Your task to perform on an android device: turn on wifi Image 0: 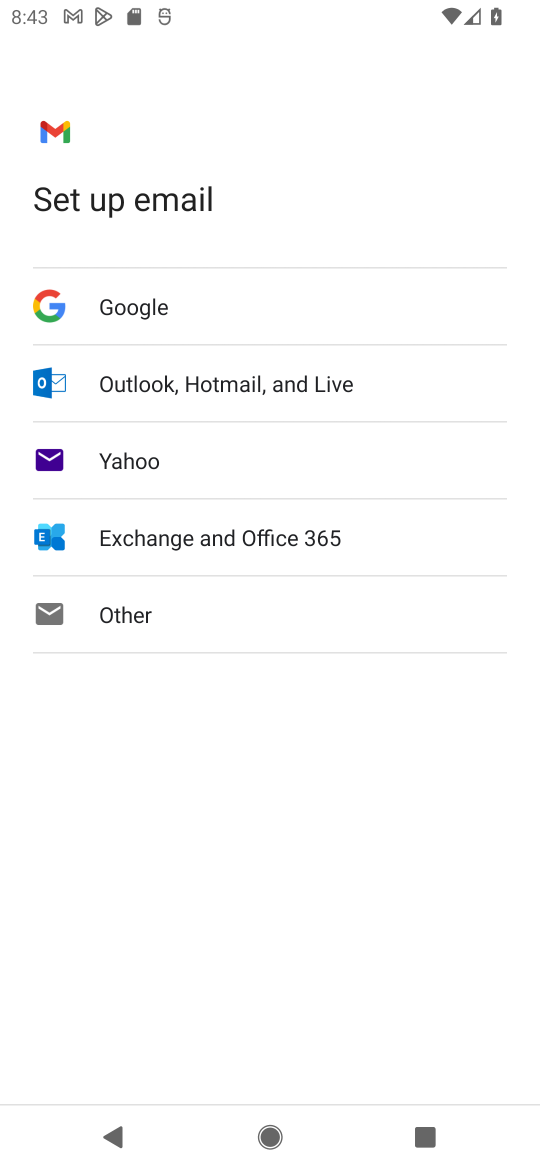
Step 0: press home button
Your task to perform on an android device: turn on wifi Image 1: 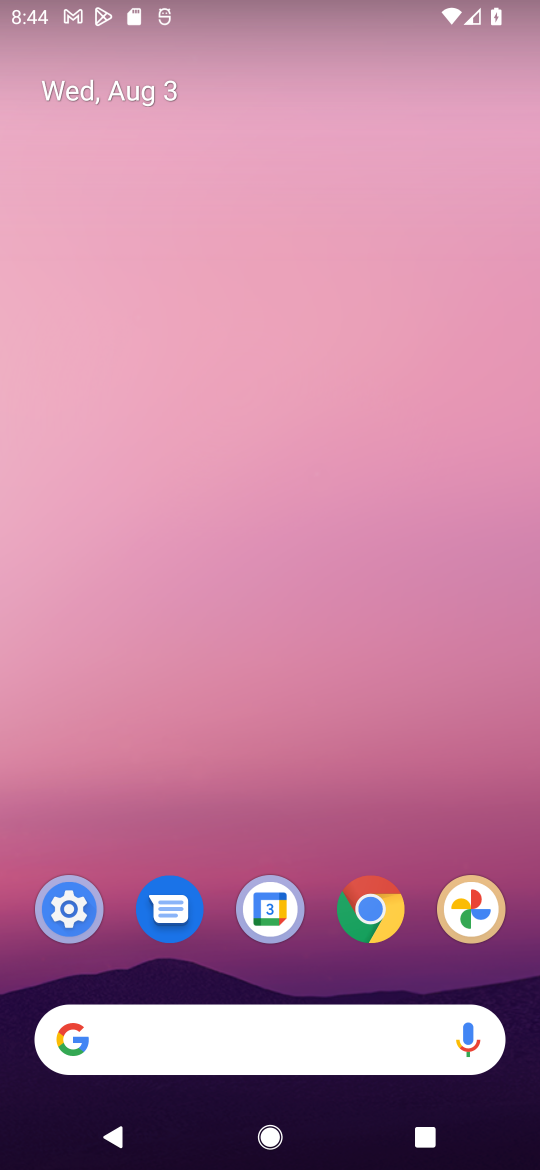
Step 1: drag from (407, 822) to (430, 398)
Your task to perform on an android device: turn on wifi Image 2: 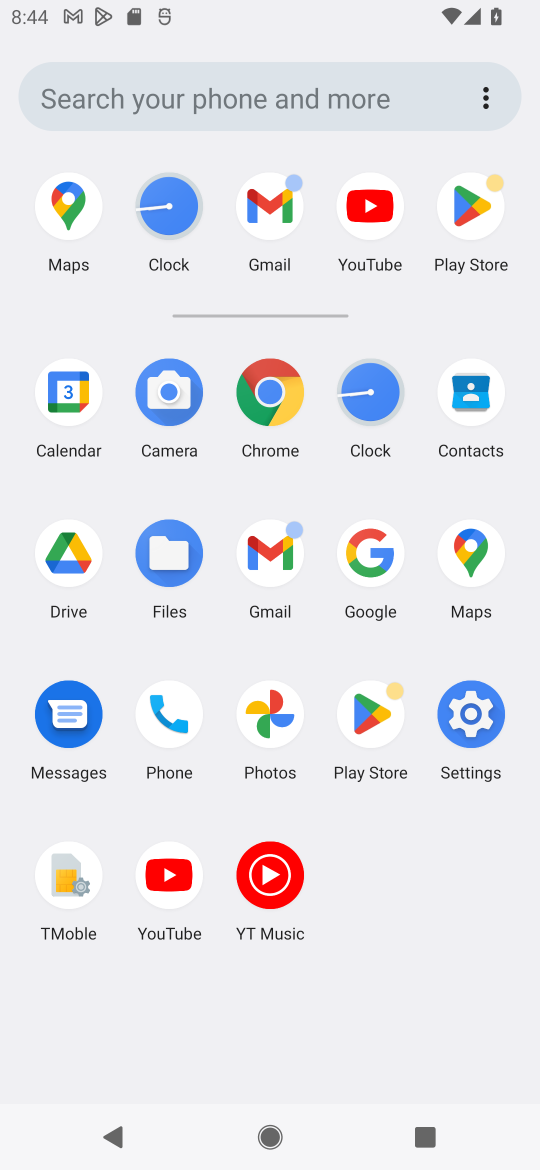
Step 2: click (481, 720)
Your task to perform on an android device: turn on wifi Image 3: 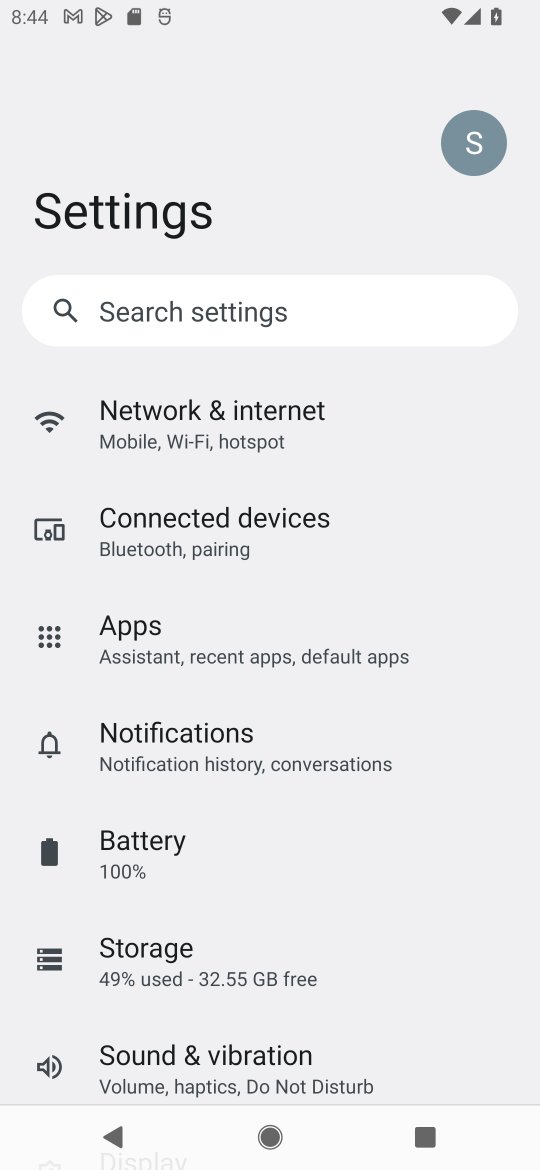
Step 3: drag from (458, 889) to (477, 710)
Your task to perform on an android device: turn on wifi Image 4: 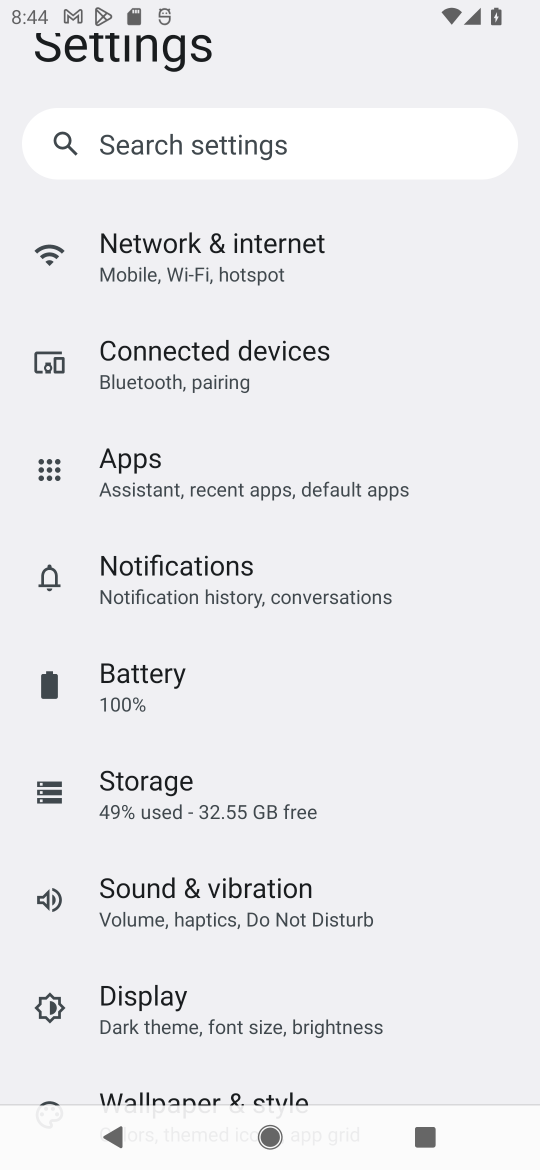
Step 4: drag from (437, 947) to (447, 775)
Your task to perform on an android device: turn on wifi Image 5: 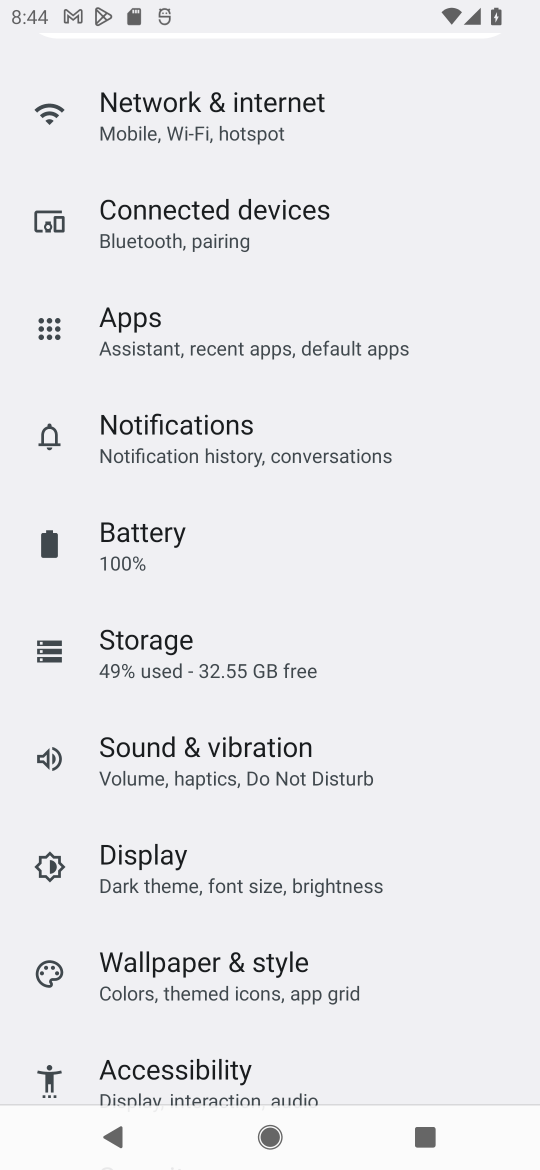
Step 5: drag from (460, 969) to (458, 791)
Your task to perform on an android device: turn on wifi Image 6: 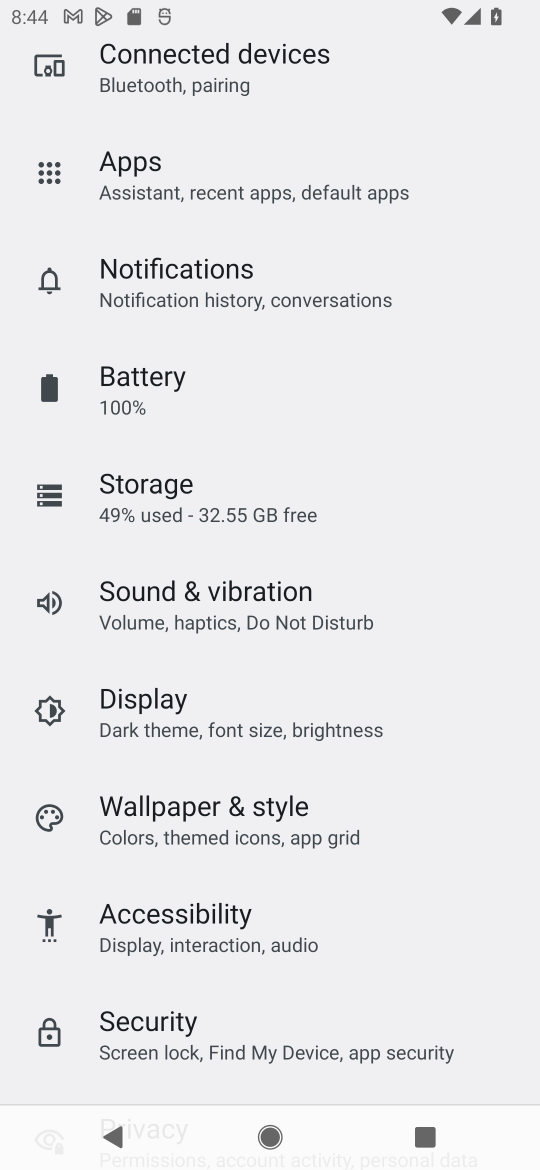
Step 6: drag from (461, 984) to (469, 803)
Your task to perform on an android device: turn on wifi Image 7: 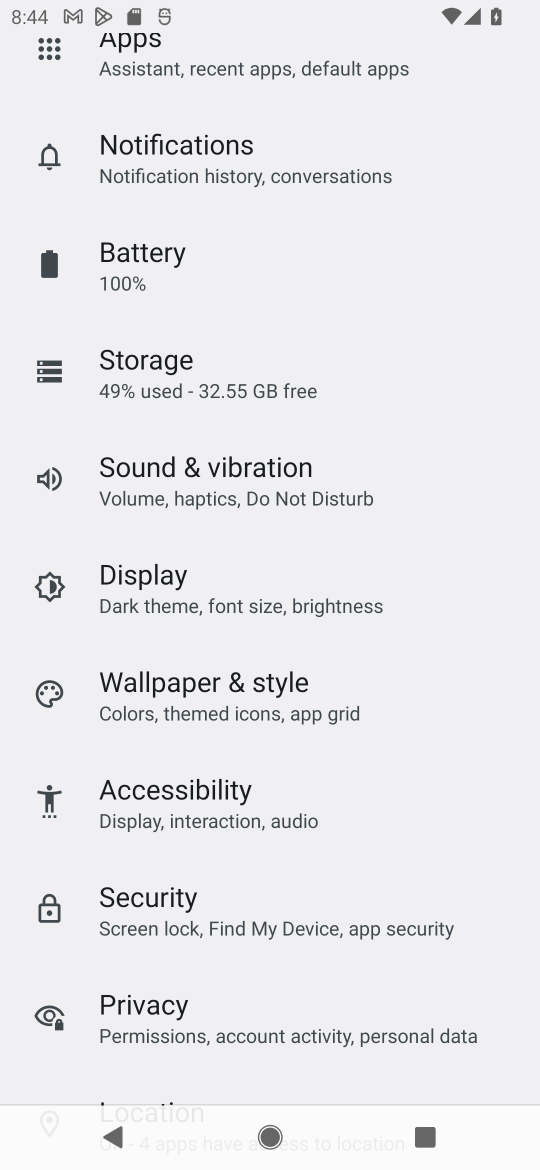
Step 7: drag from (477, 1053) to (477, 897)
Your task to perform on an android device: turn on wifi Image 8: 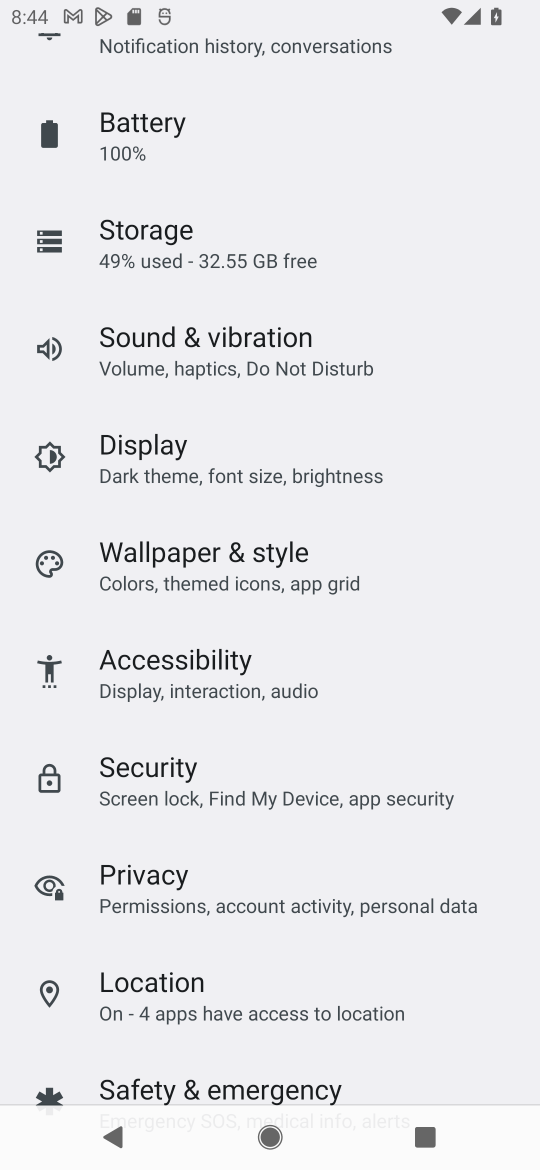
Step 8: drag from (450, 981) to (460, 839)
Your task to perform on an android device: turn on wifi Image 9: 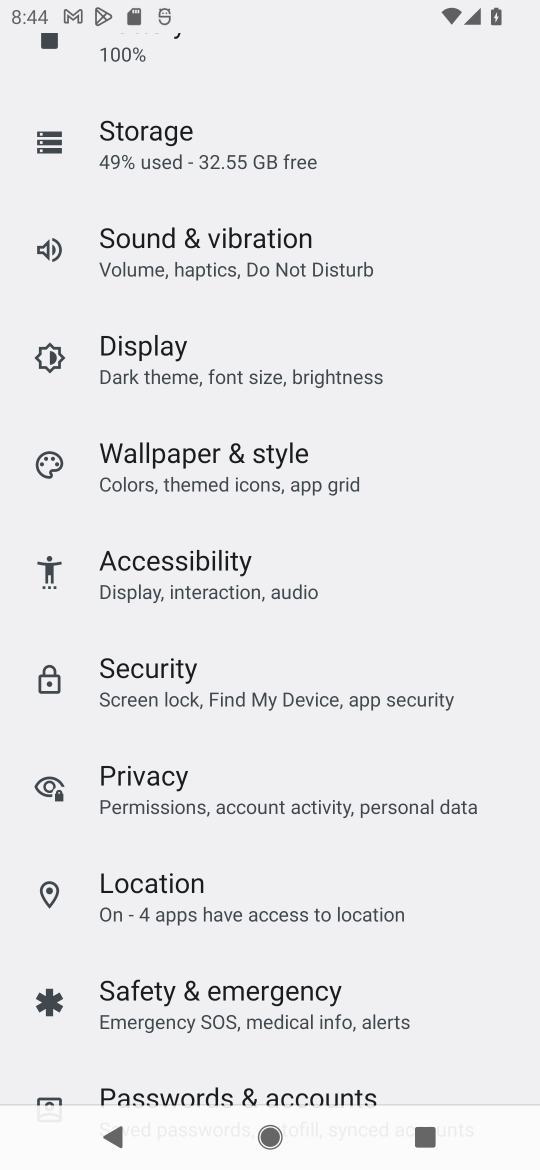
Step 9: drag from (483, 1012) to (480, 846)
Your task to perform on an android device: turn on wifi Image 10: 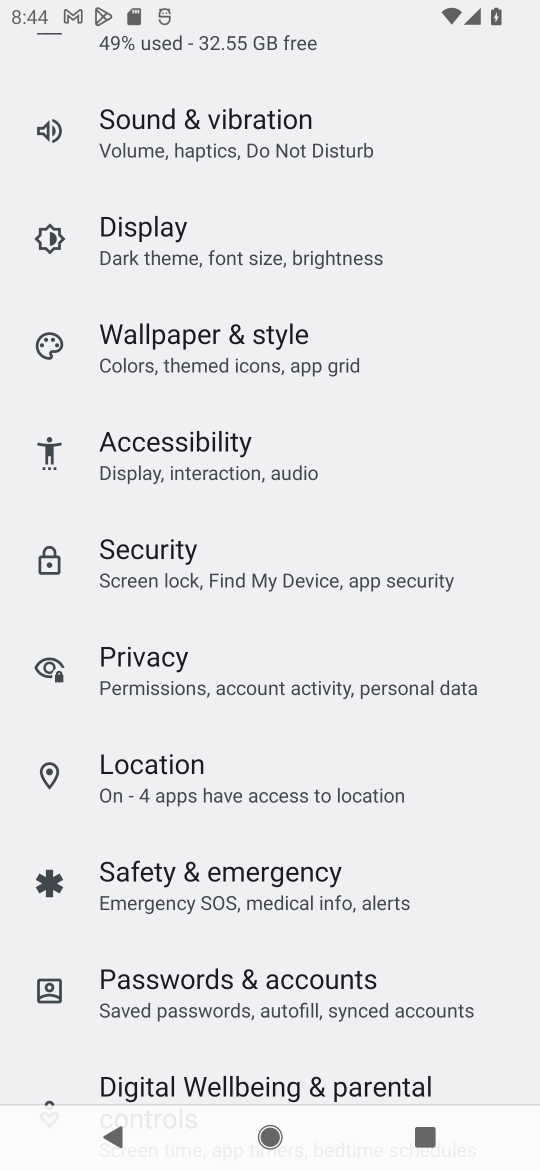
Step 10: drag from (479, 1018) to (489, 832)
Your task to perform on an android device: turn on wifi Image 11: 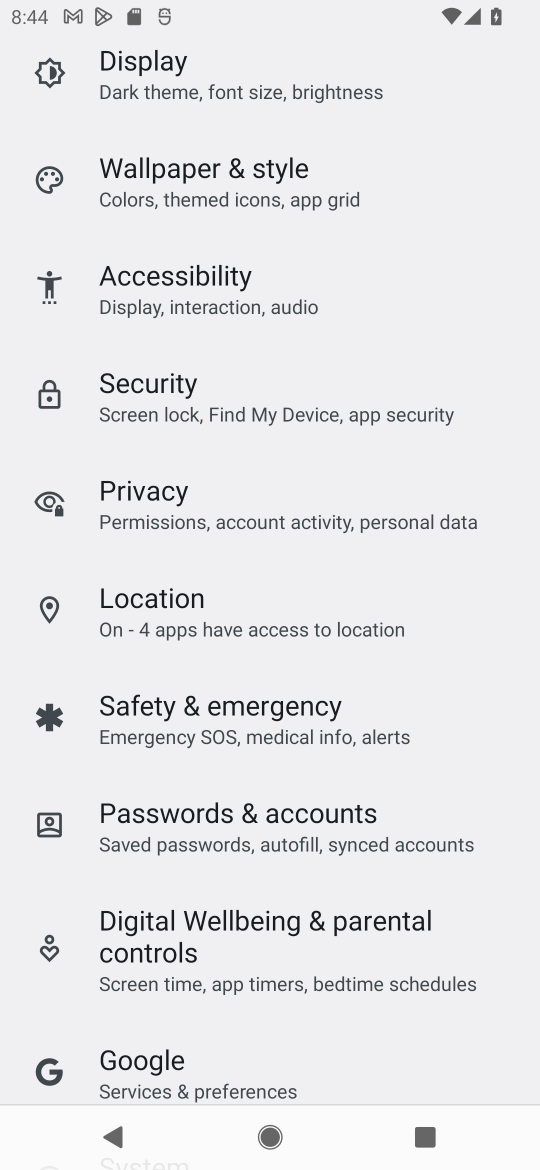
Step 11: drag from (474, 1024) to (487, 854)
Your task to perform on an android device: turn on wifi Image 12: 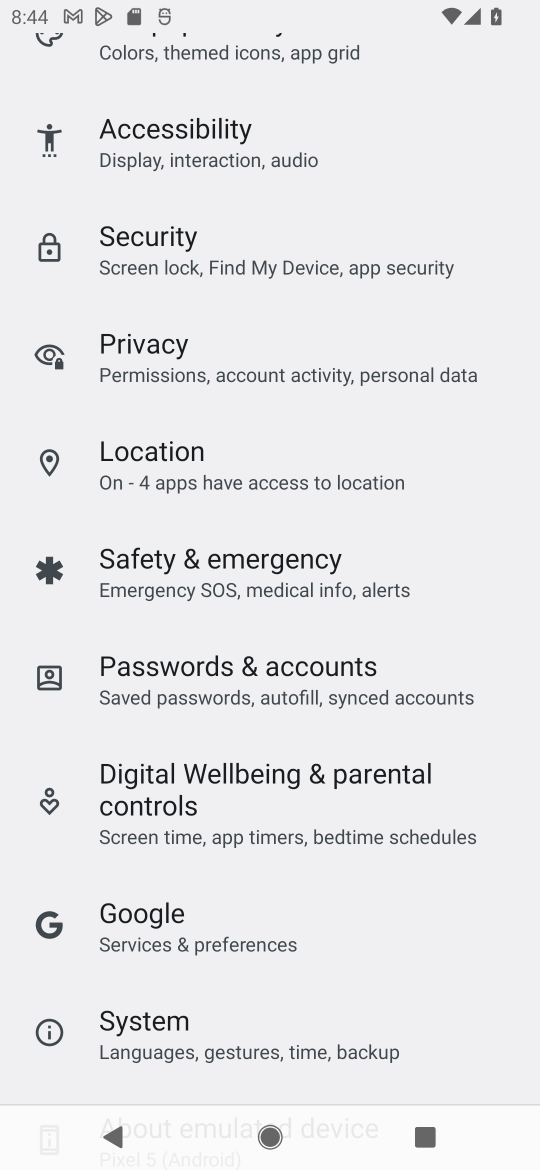
Step 12: drag from (466, 533) to (469, 730)
Your task to perform on an android device: turn on wifi Image 13: 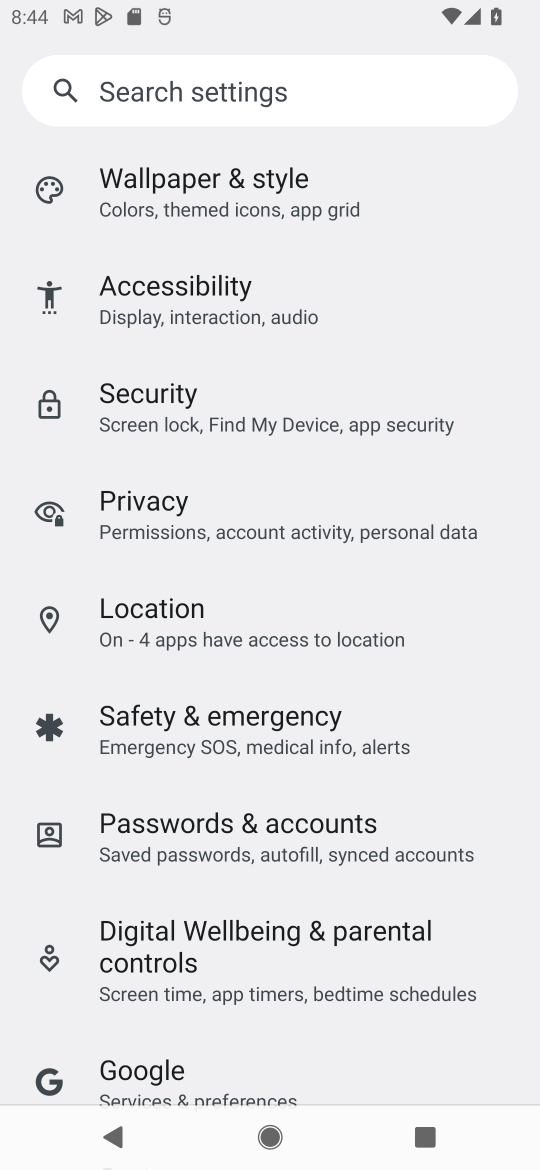
Step 13: drag from (471, 381) to (476, 547)
Your task to perform on an android device: turn on wifi Image 14: 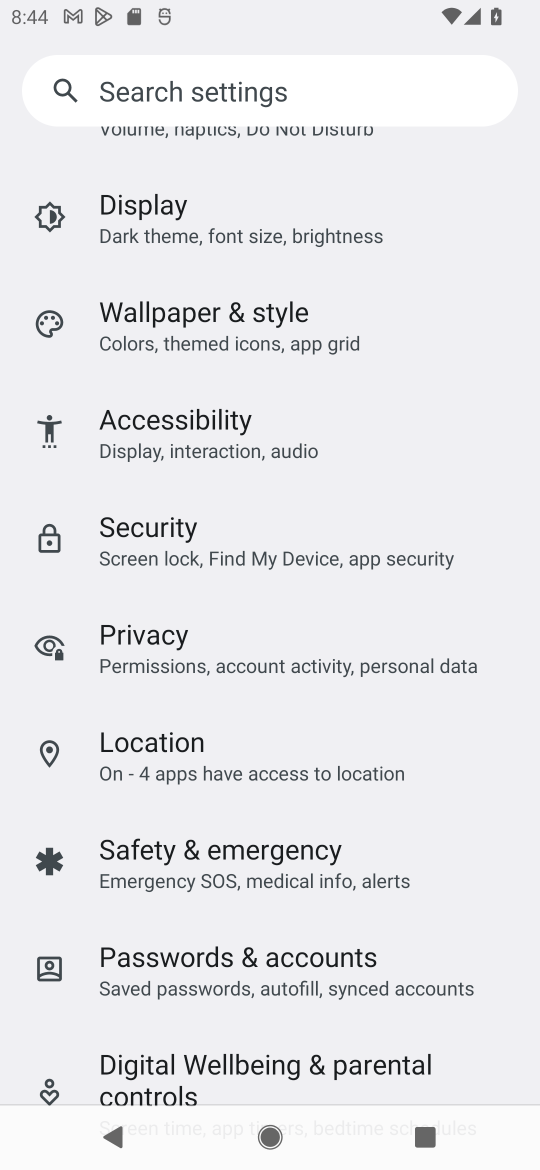
Step 14: drag from (481, 360) to (477, 557)
Your task to perform on an android device: turn on wifi Image 15: 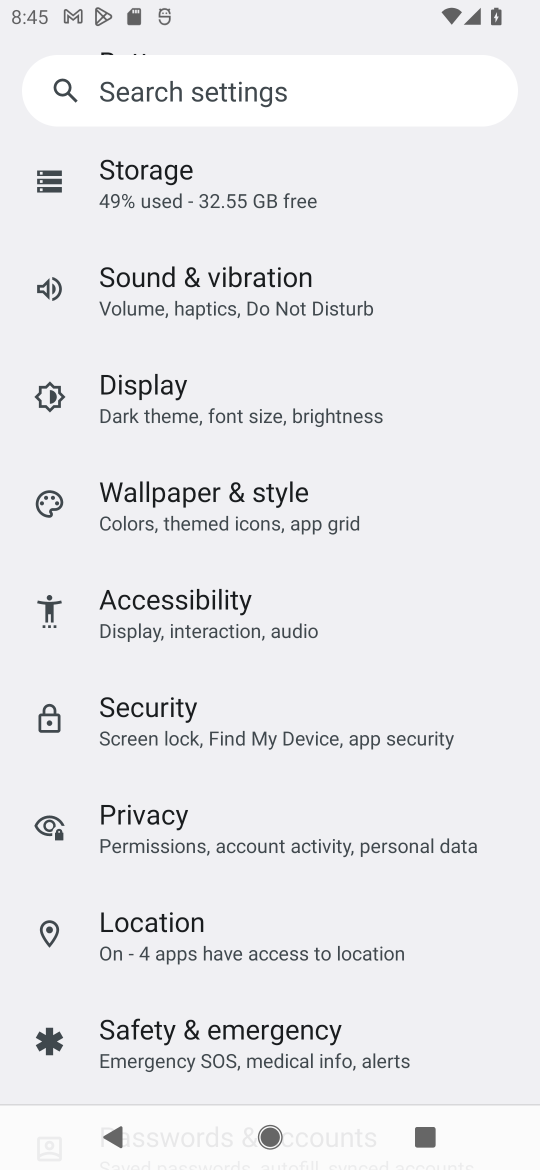
Step 15: drag from (480, 391) to (473, 597)
Your task to perform on an android device: turn on wifi Image 16: 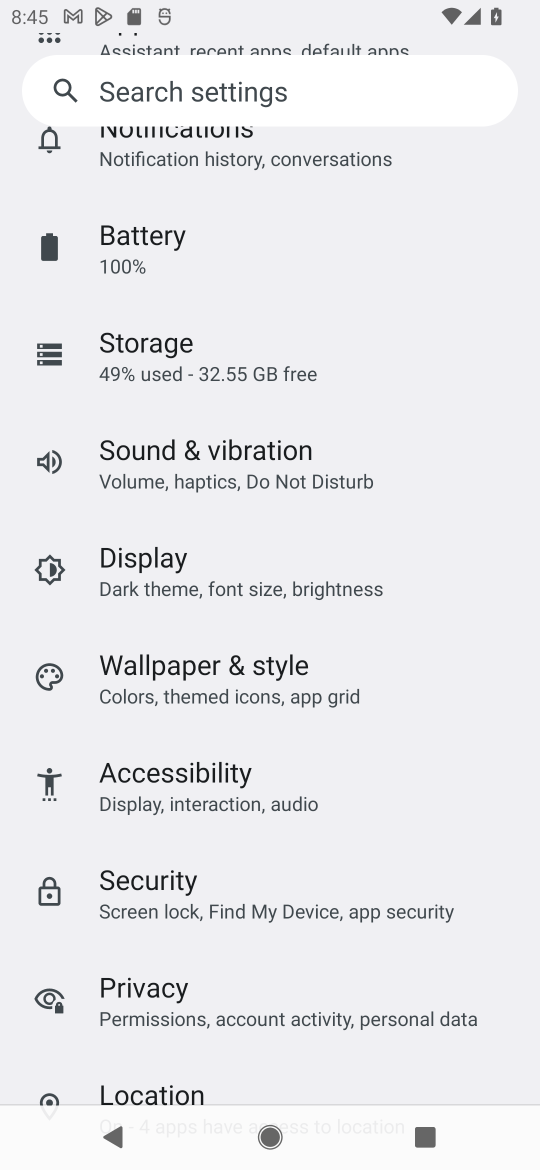
Step 16: drag from (449, 409) to (439, 573)
Your task to perform on an android device: turn on wifi Image 17: 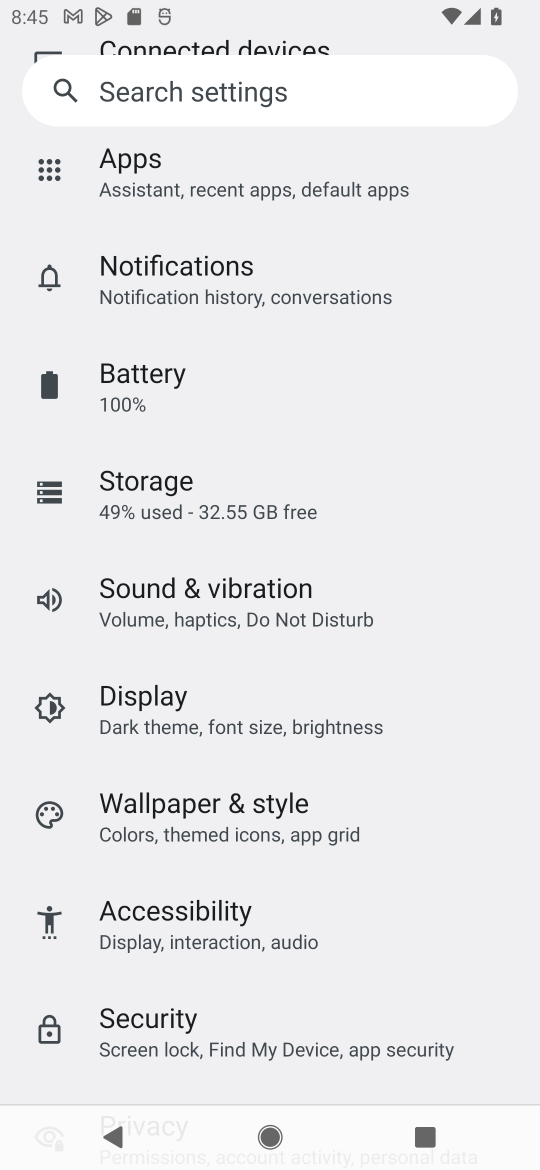
Step 17: drag from (457, 360) to (462, 606)
Your task to perform on an android device: turn on wifi Image 18: 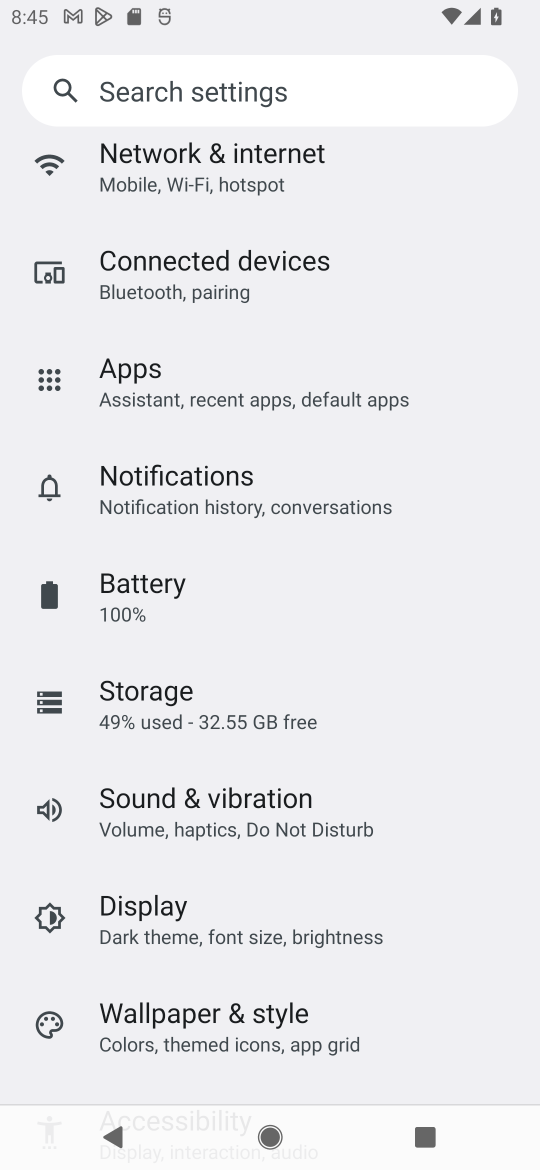
Step 18: drag from (463, 324) to (467, 526)
Your task to perform on an android device: turn on wifi Image 19: 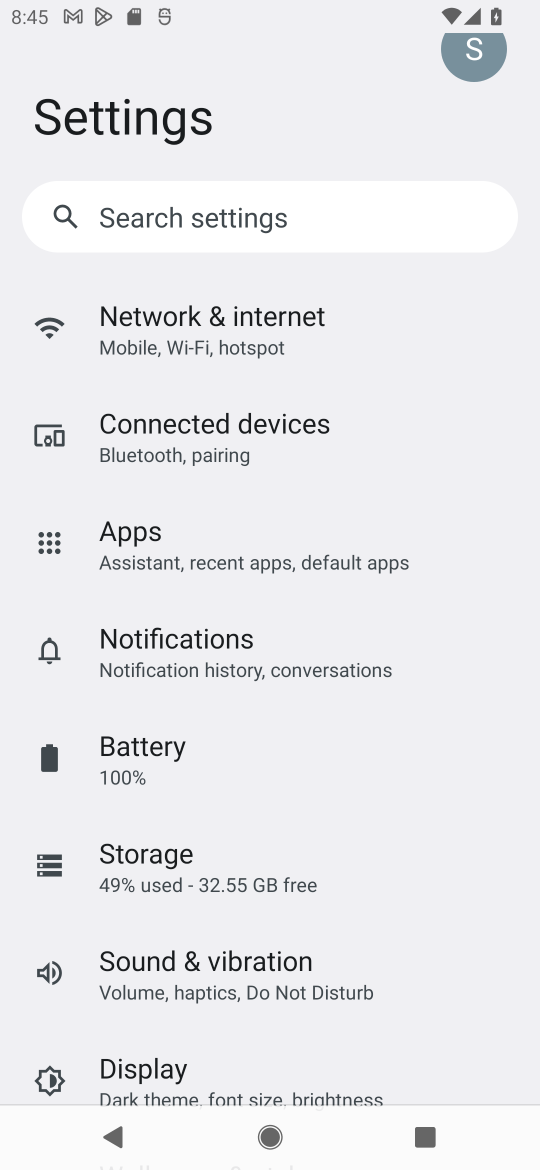
Step 19: click (345, 341)
Your task to perform on an android device: turn on wifi Image 20: 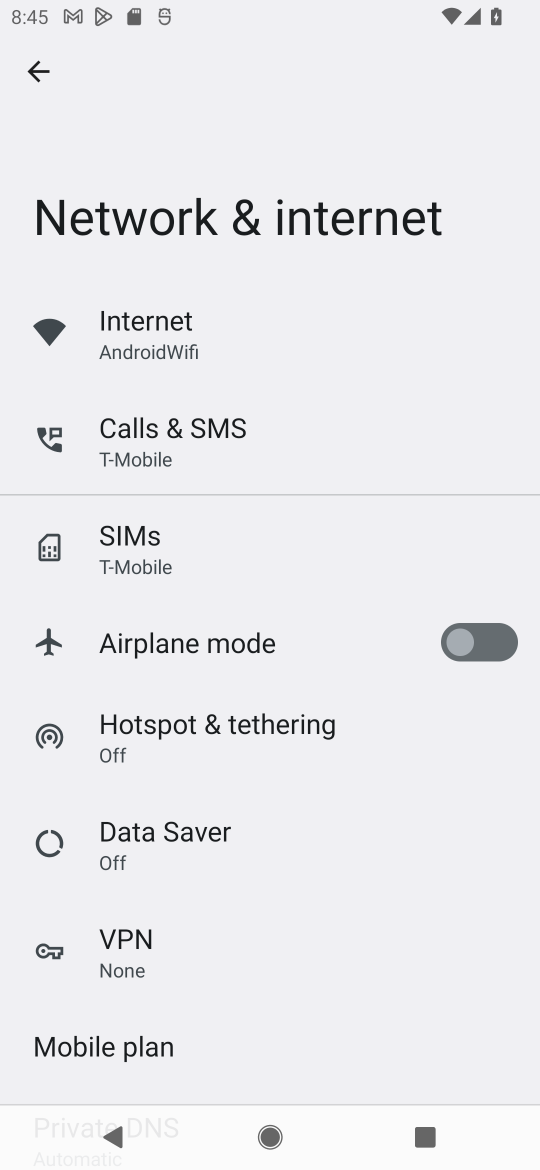
Step 20: click (166, 328)
Your task to perform on an android device: turn on wifi Image 21: 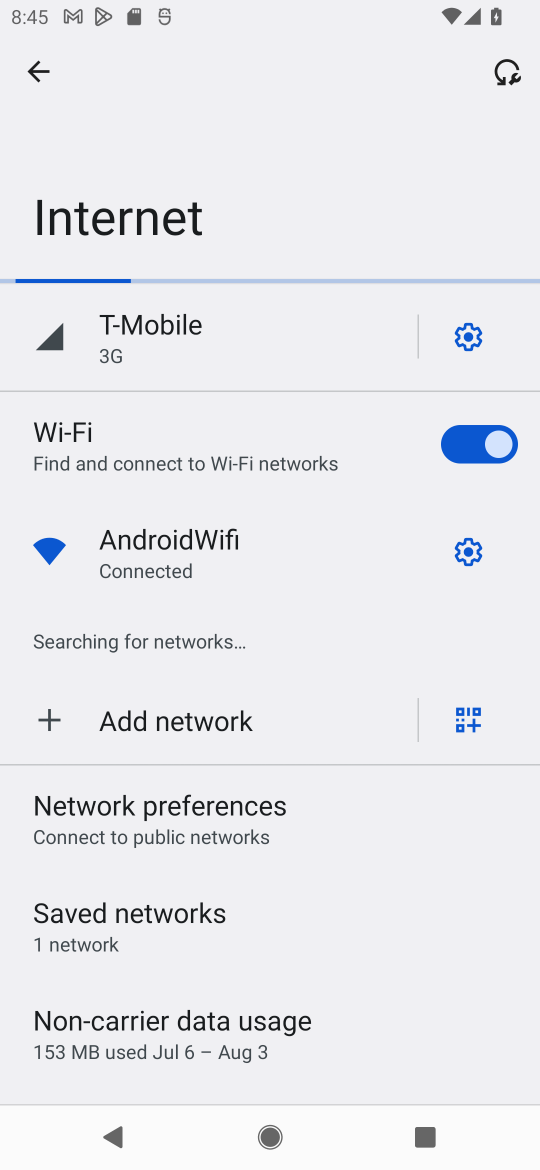
Step 21: task complete